Your task to perform on an android device: Go to eBay Image 0: 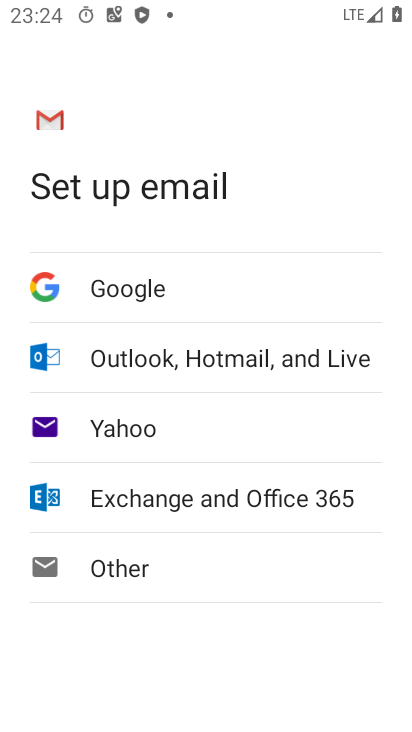
Step 0: press home button
Your task to perform on an android device: Go to eBay Image 1: 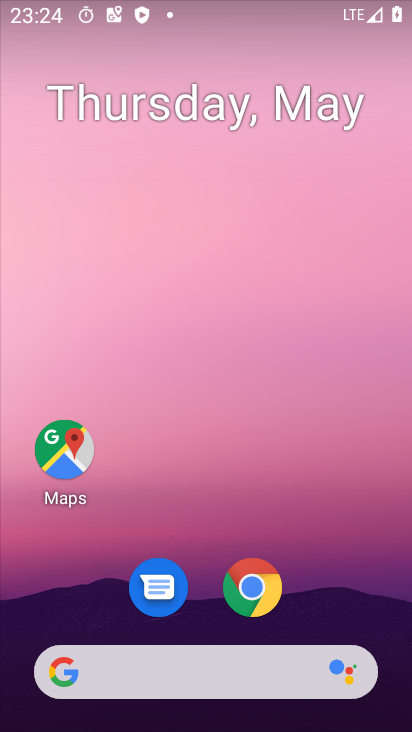
Step 1: click (257, 603)
Your task to perform on an android device: Go to eBay Image 2: 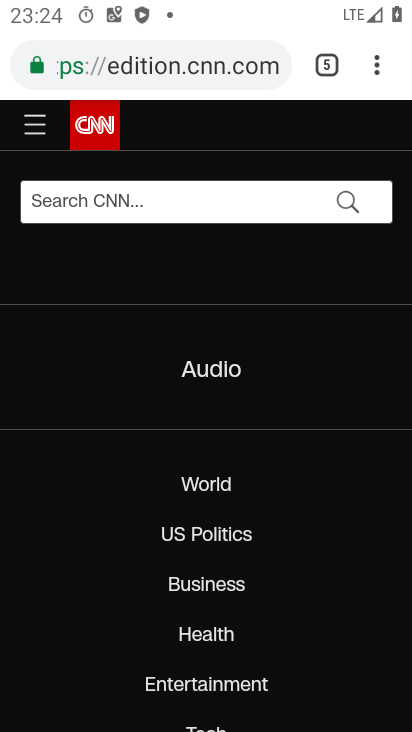
Step 2: click (111, 80)
Your task to perform on an android device: Go to eBay Image 3: 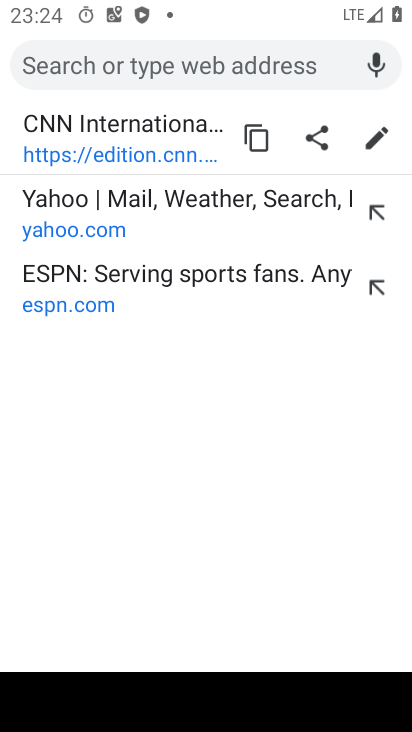
Step 3: type "ebay"
Your task to perform on an android device: Go to eBay Image 4: 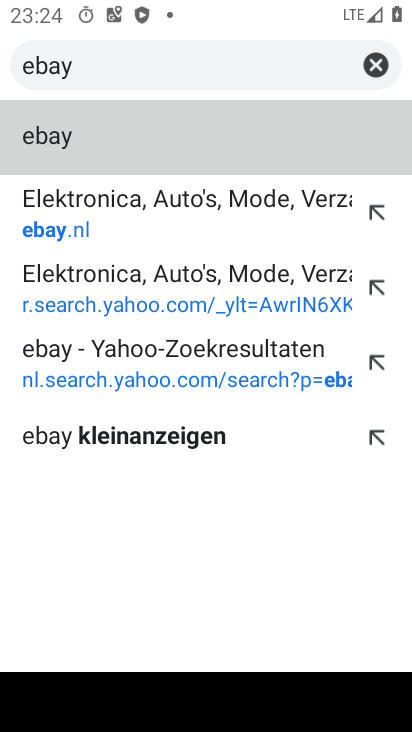
Step 4: click (24, 141)
Your task to perform on an android device: Go to eBay Image 5: 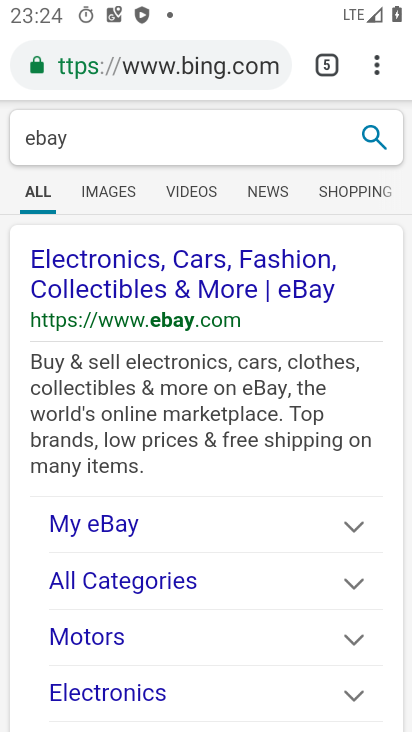
Step 5: click (79, 320)
Your task to perform on an android device: Go to eBay Image 6: 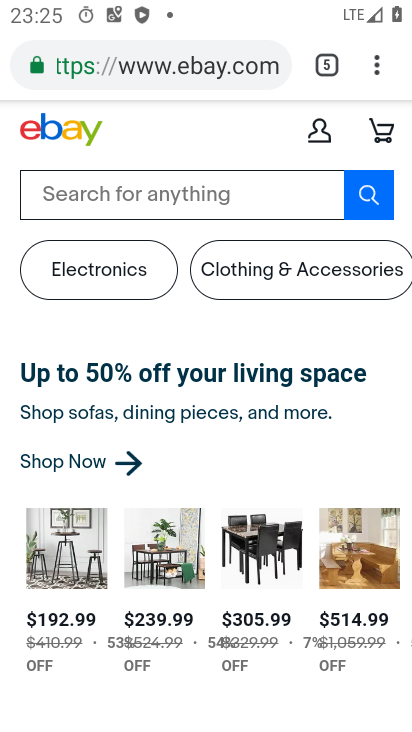
Step 6: task complete